Your task to perform on an android device: Open calendar and show me the fourth week of next month Image 0: 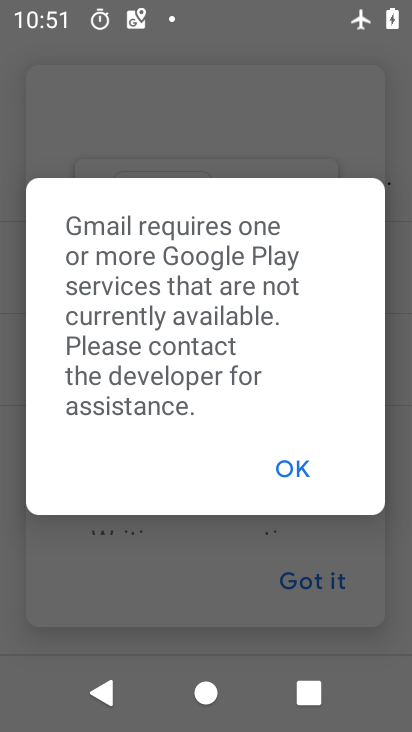
Step 0: press home button
Your task to perform on an android device: Open calendar and show me the fourth week of next month Image 1: 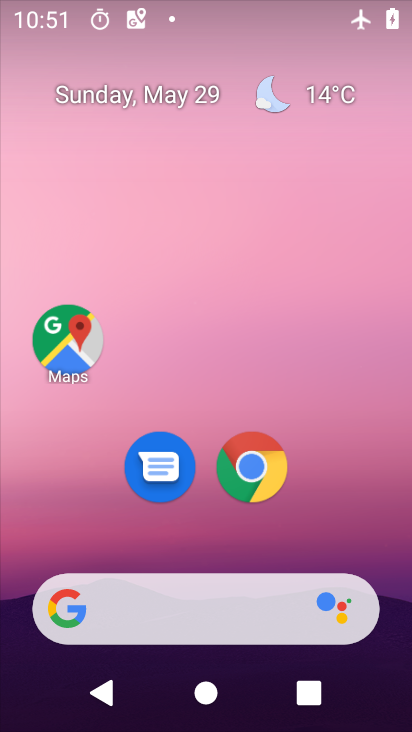
Step 1: drag from (214, 545) to (169, 203)
Your task to perform on an android device: Open calendar and show me the fourth week of next month Image 2: 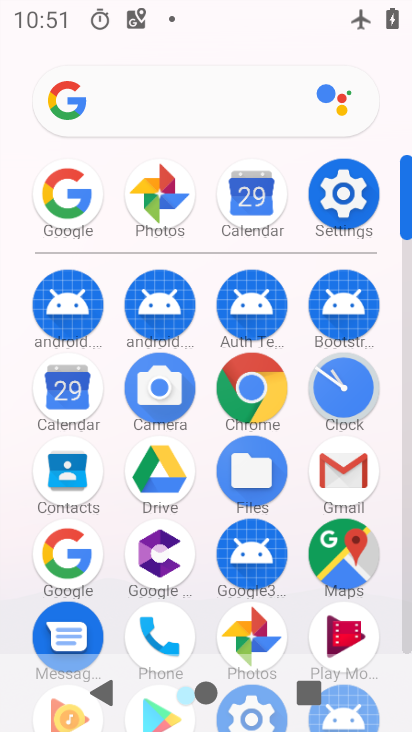
Step 2: click (74, 378)
Your task to perform on an android device: Open calendar and show me the fourth week of next month Image 3: 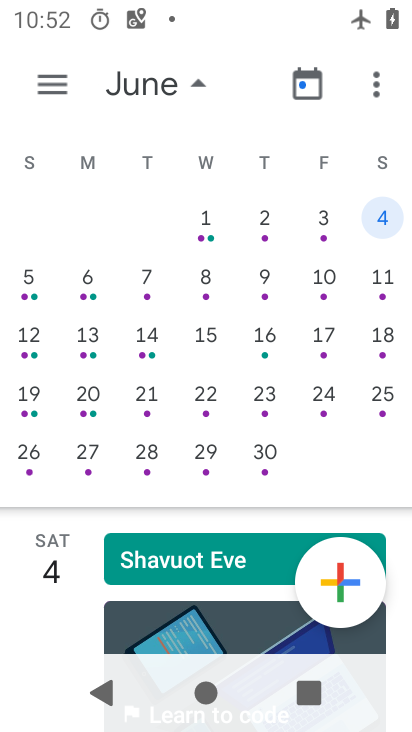
Step 3: click (28, 388)
Your task to perform on an android device: Open calendar and show me the fourth week of next month Image 4: 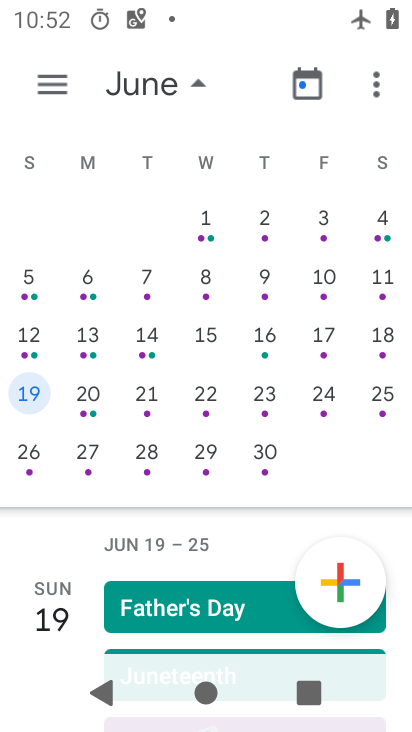
Step 4: task complete